Your task to perform on an android device: Search for seafood restaurants on Google Maps Image 0: 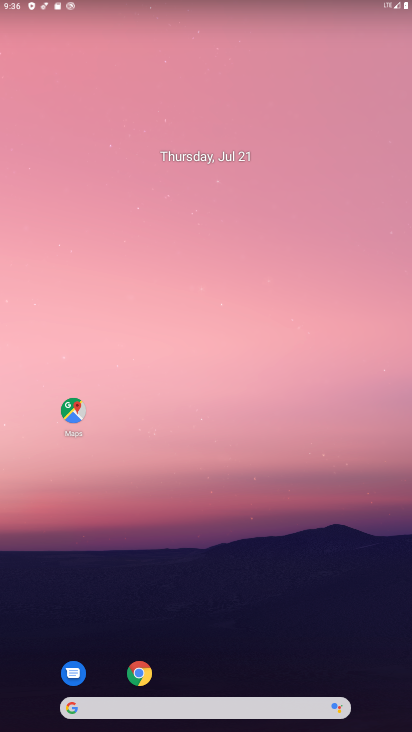
Step 0: drag from (193, 669) to (174, 51)
Your task to perform on an android device: Search for seafood restaurants on Google Maps Image 1: 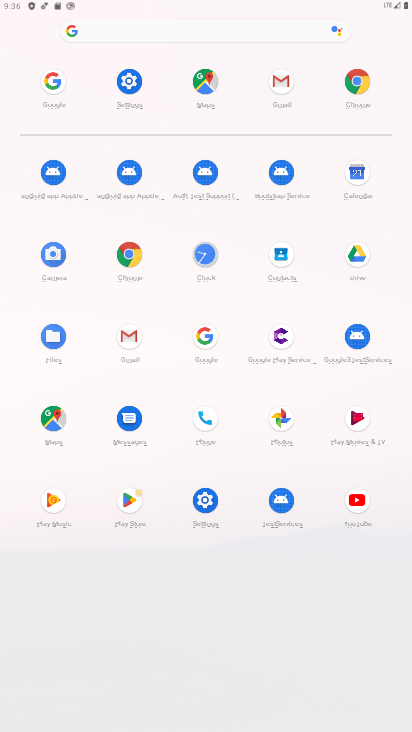
Step 1: click (53, 411)
Your task to perform on an android device: Search for seafood restaurants on Google Maps Image 2: 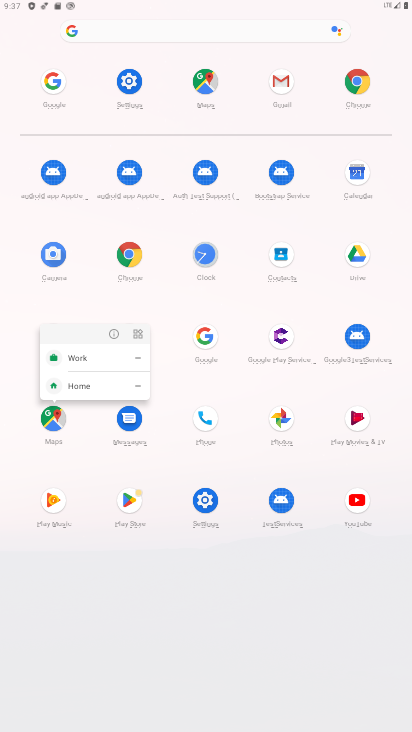
Step 2: drag from (173, 541) to (173, 261)
Your task to perform on an android device: Search for seafood restaurants on Google Maps Image 3: 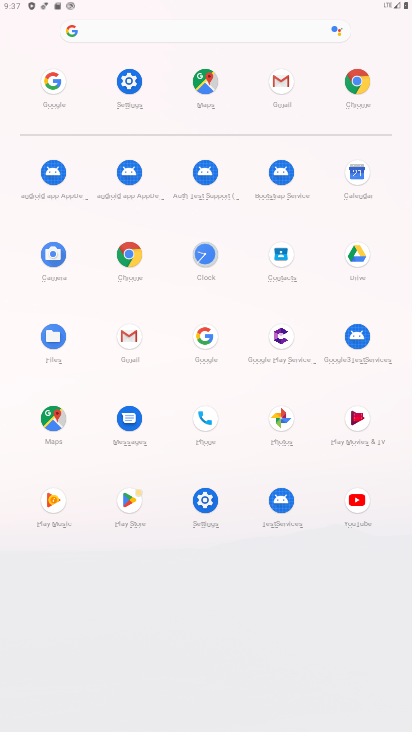
Step 3: click (65, 413)
Your task to perform on an android device: Search for seafood restaurants on Google Maps Image 4: 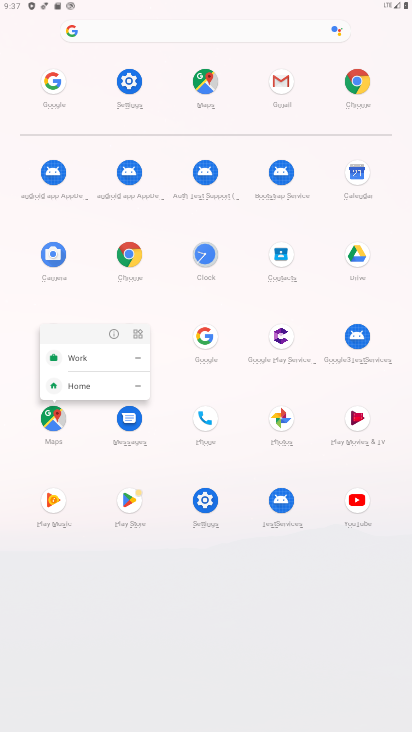
Step 4: click (109, 334)
Your task to perform on an android device: Search for seafood restaurants on Google Maps Image 5: 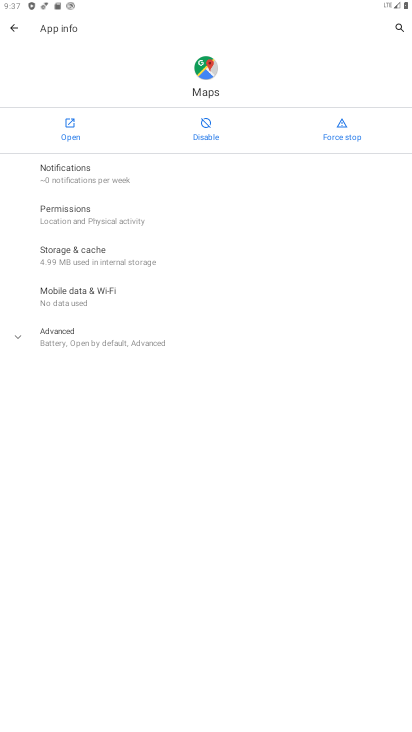
Step 5: click (58, 133)
Your task to perform on an android device: Search for seafood restaurants on Google Maps Image 6: 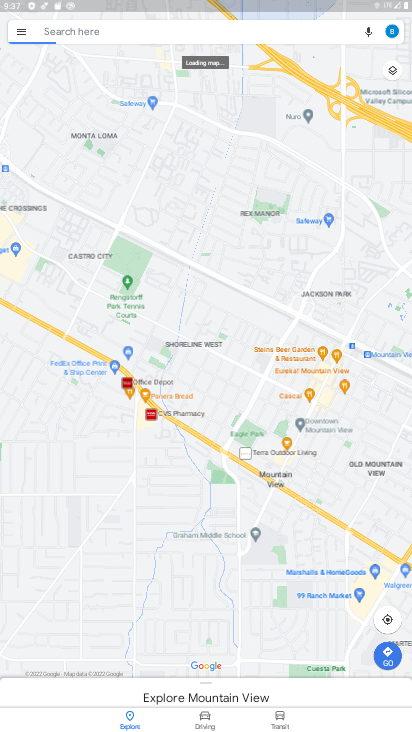
Step 6: click (114, 40)
Your task to perform on an android device: Search for seafood restaurants on Google Maps Image 7: 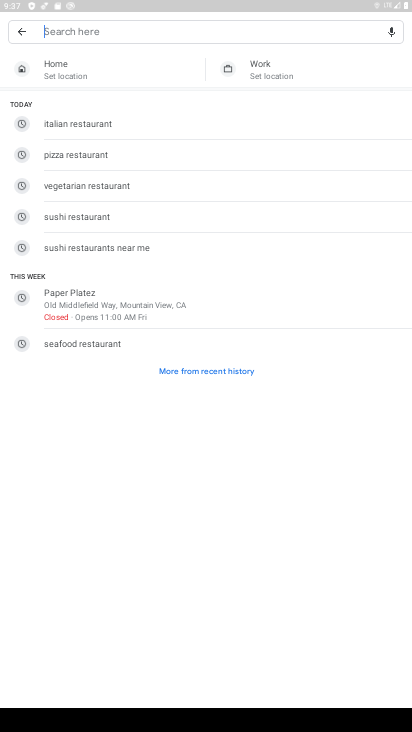
Step 7: click (73, 342)
Your task to perform on an android device: Search for seafood restaurants on Google Maps Image 8: 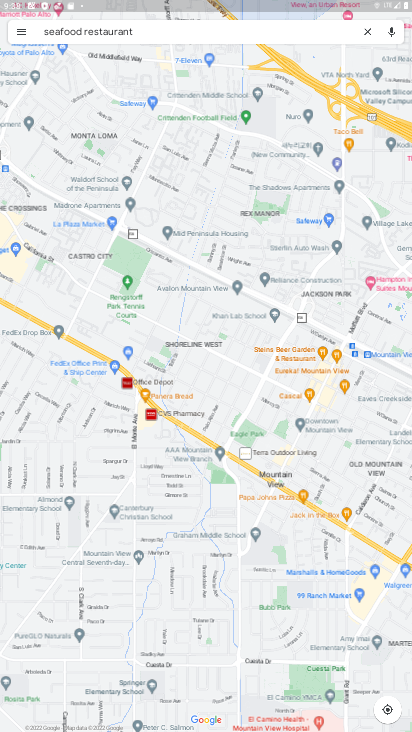
Step 8: task complete